Your task to perform on an android device: Open Maps and search for coffee Image 0: 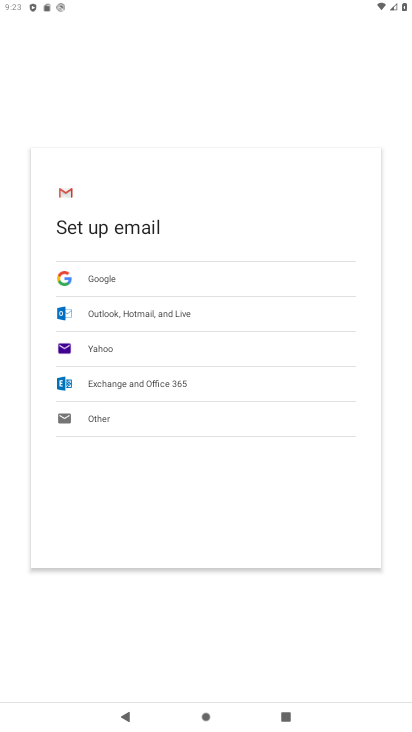
Step 0: press home button
Your task to perform on an android device: Open Maps and search for coffee Image 1: 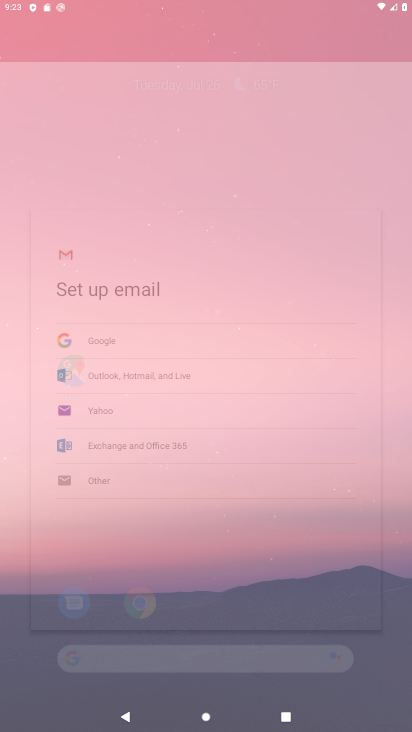
Step 1: press home button
Your task to perform on an android device: Open Maps and search for coffee Image 2: 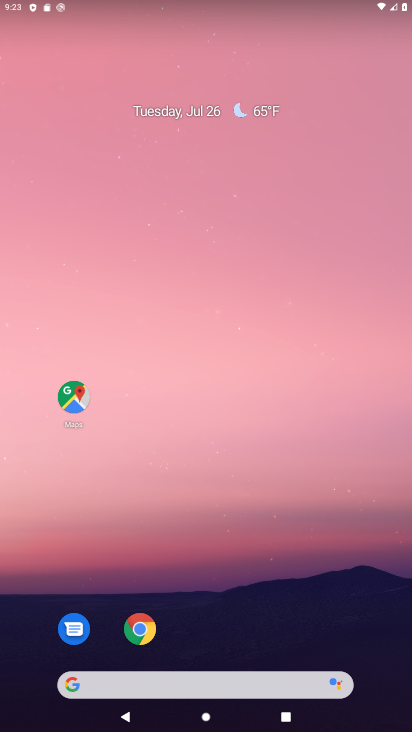
Step 2: drag from (313, 650) to (136, 155)
Your task to perform on an android device: Open Maps and search for coffee Image 3: 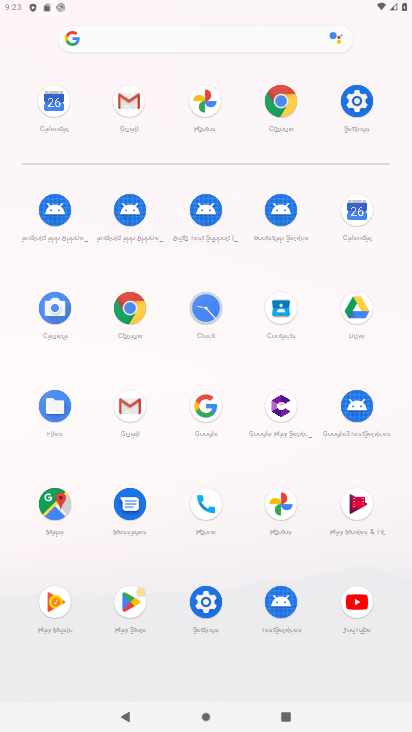
Step 3: click (45, 498)
Your task to perform on an android device: Open Maps and search for coffee Image 4: 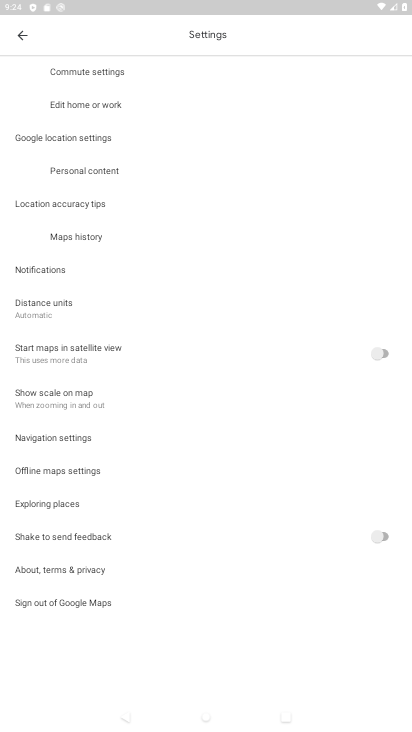
Step 4: click (29, 40)
Your task to perform on an android device: Open Maps and search for coffee Image 5: 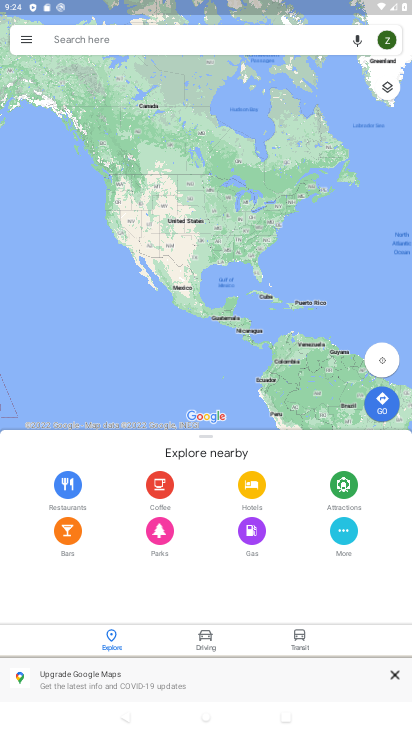
Step 5: click (129, 36)
Your task to perform on an android device: Open Maps and search for coffee Image 6: 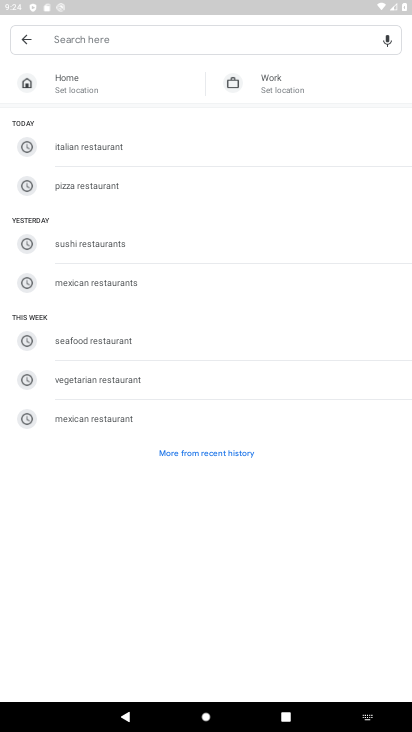
Step 6: type "coffee"
Your task to perform on an android device: Open Maps and search for coffee Image 7: 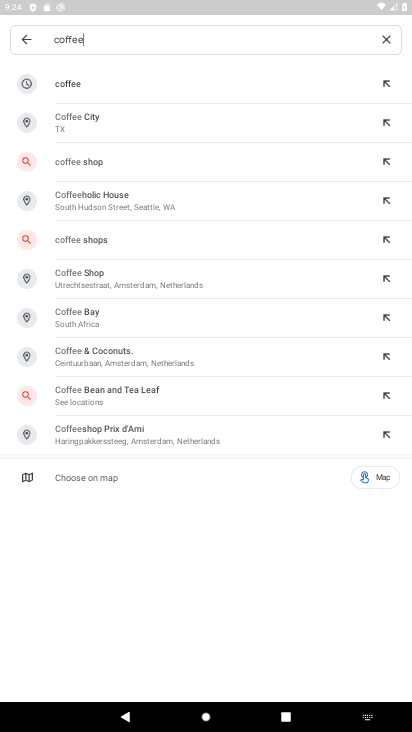
Step 7: click (67, 77)
Your task to perform on an android device: Open Maps and search for coffee Image 8: 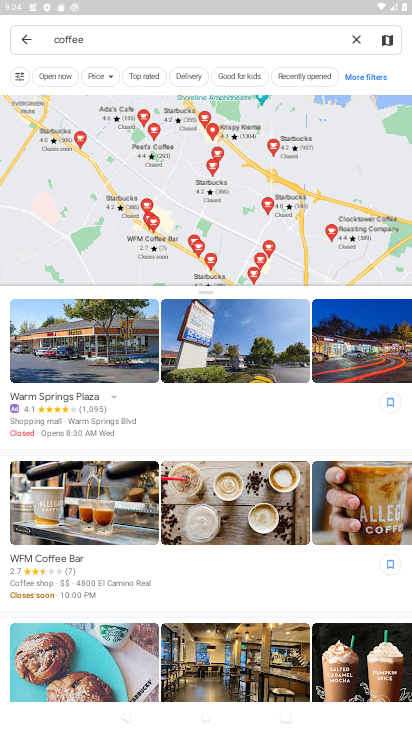
Step 8: task complete